Your task to perform on an android device: Search for rayovac triple a on walmart.com, select the first entry, and add it to the cart. Image 0: 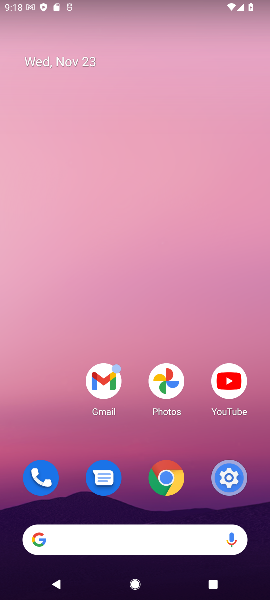
Step 0: click (109, 533)
Your task to perform on an android device: Search for rayovac triple a on walmart.com, select the first entry, and add it to the cart. Image 1: 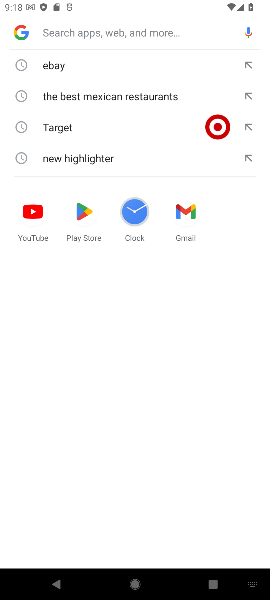
Step 1: type "walmart.com"
Your task to perform on an android device: Search for rayovac triple a on walmart.com, select the first entry, and add it to the cart. Image 2: 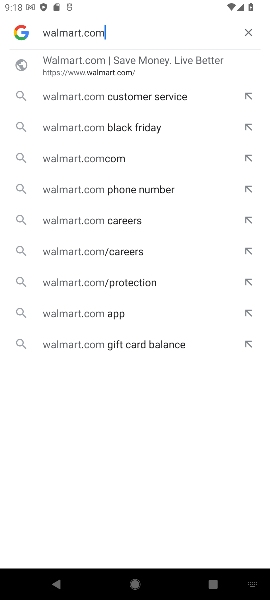
Step 2: click (104, 62)
Your task to perform on an android device: Search for rayovac triple a on walmart.com, select the first entry, and add it to the cart. Image 3: 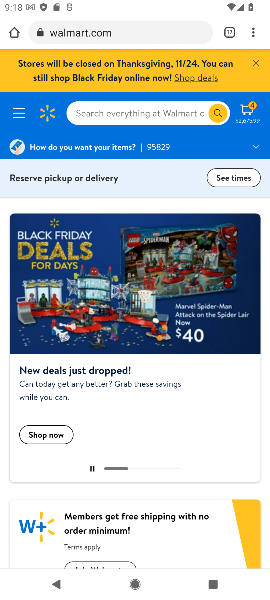
Step 3: click (139, 111)
Your task to perform on an android device: Search for rayovac triple a on walmart.com, select the first entry, and add it to the cart. Image 4: 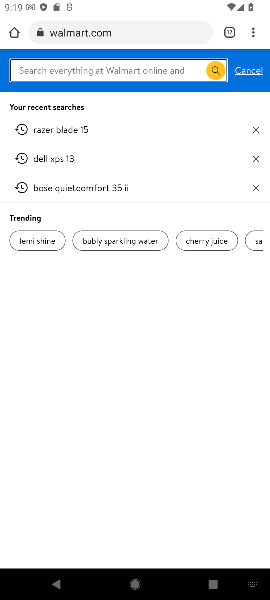
Step 4: type "rayovac triple"
Your task to perform on an android device: Search for rayovac triple a on walmart.com, select the first entry, and add it to the cart. Image 5: 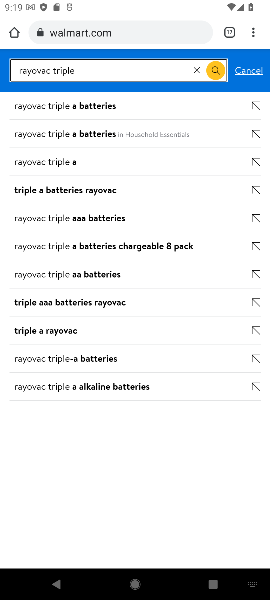
Step 5: click (89, 113)
Your task to perform on an android device: Search for rayovac triple a on walmart.com, select the first entry, and add it to the cart. Image 6: 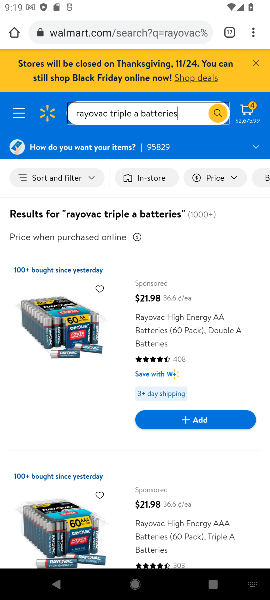
Step 6: click (189, 425)
Your task to perform on an android device: Search for rayovac triple a on walmart.com, select the first entry, and add it to the cart. Image 7: 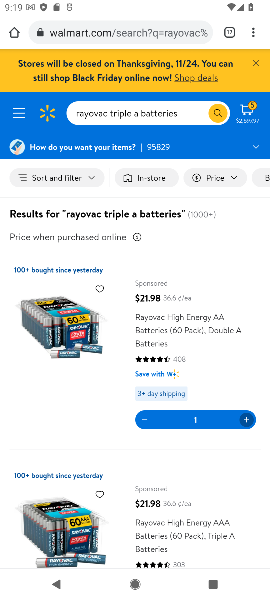
Step 7: task complete